Your task to perform on an android device: Show me popular games on the Play Store Image 0: 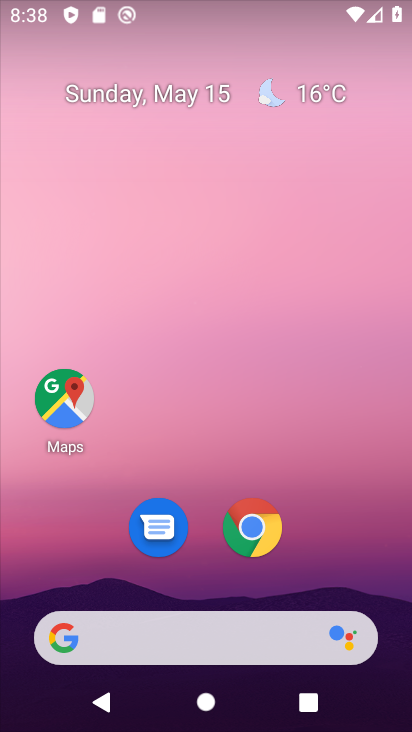
Step 0: drag from (350, 581) to (326, 10)
Your task to perform on an android device: Show me popular games on the Play Store Image 1: 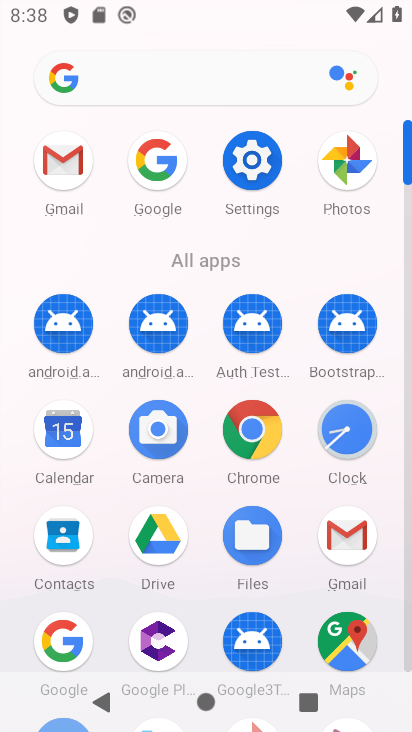
Step 1: drag from (409, 515) to (405, 446)
Your task to perform on an android device: Show me popular games on the Play Store Image 2: 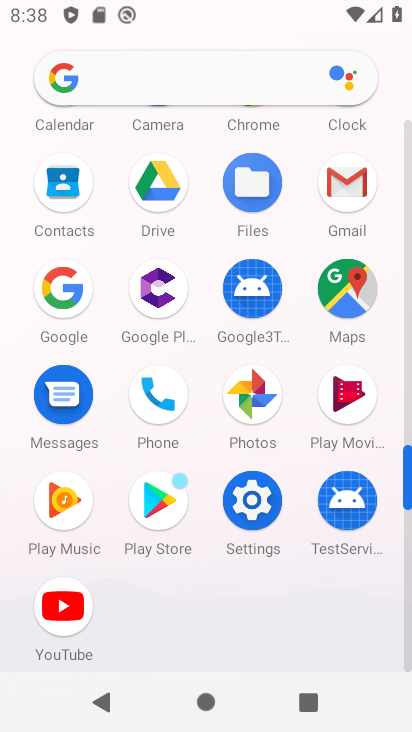
Step 2: click (173, 501)
Your task to perform on an android device: Show me popular games on the Play Store Image 3: 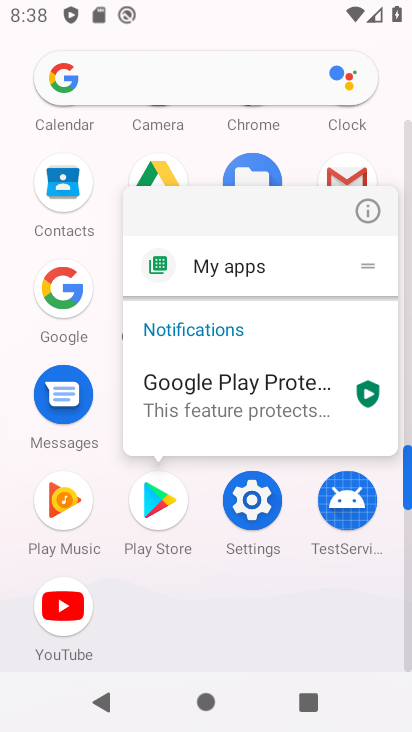
Step 3: click (161, 518)
Your task to perform on an android device: Show me popular games on the Play Store Image 4: 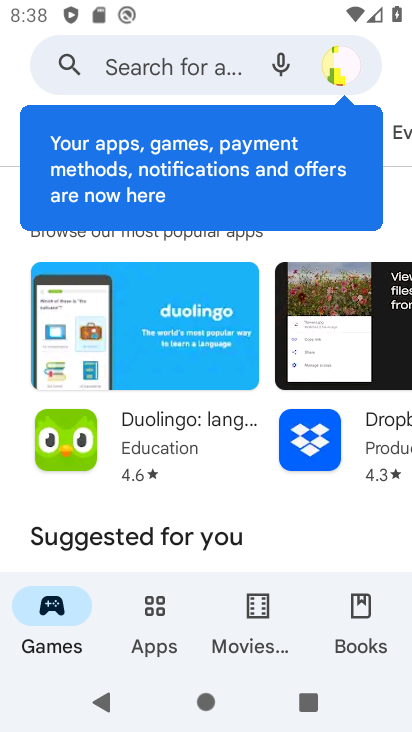
Step 4: drag from (161, 548) to (171, 150)
Your task to perform on an android device: Show me popular games on the Play Store Image 5: 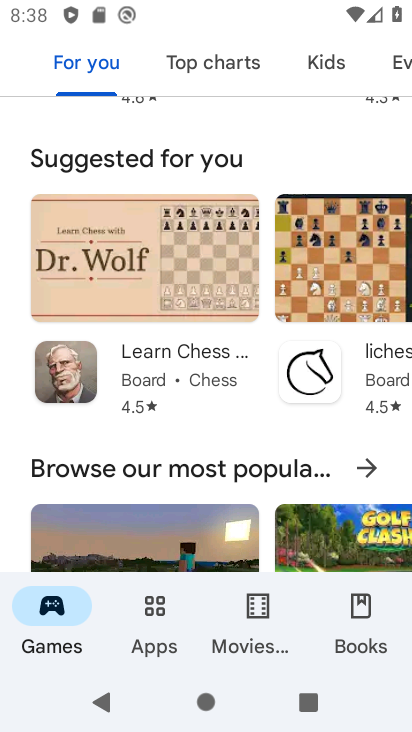
Step 5: drag from (170, 448) to (167, 141)
Your task to perform on an android device: Show me popular games on the Play Store Image 6: 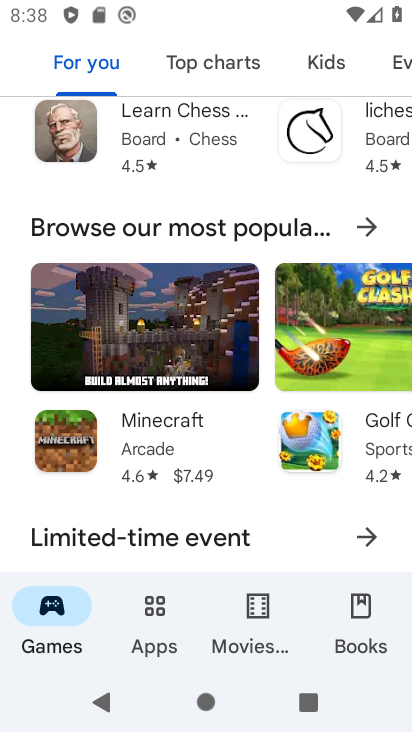
Step 6: click (223, 235)
Your task to perform on an android device: Show me popular games on the Play Store Image 7: 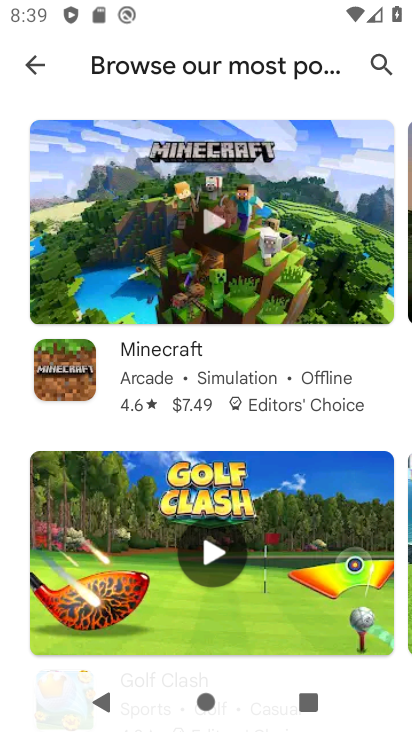
Step 7: task complete